Your task to perform on an android device: Open Chrome and go to settings Image 0: 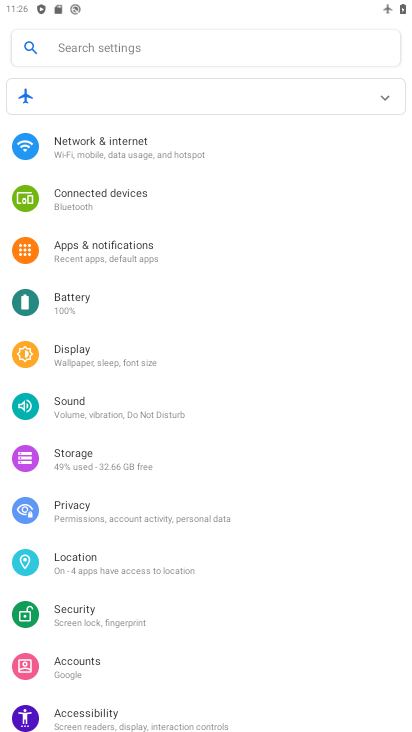
Step 0: press home button
Your task to perform on an android device: Open Chrome and go to settings Image 1: 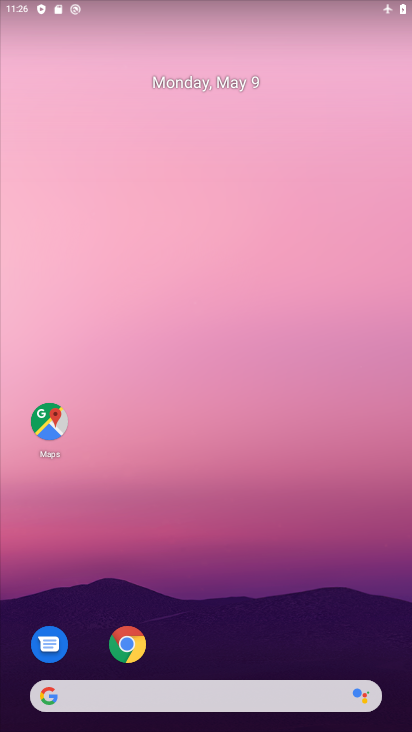
Step 1: click (132, 634)
Your task to perform on an android device: Open Chrome and go to settings Image 2: 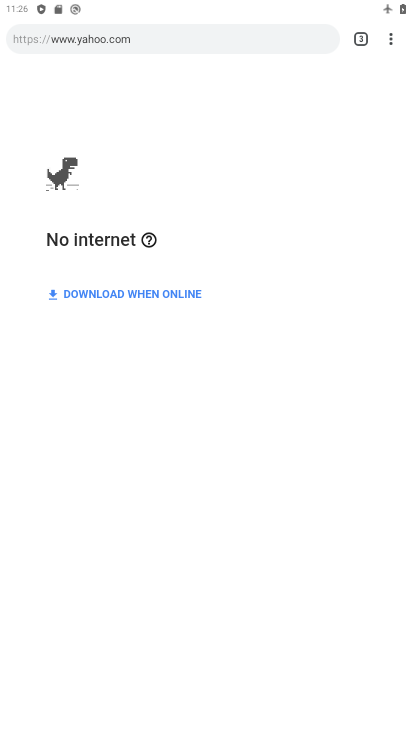
Step 2: task complete